Your task to perform on an android device: Go to sound settings Image 0: 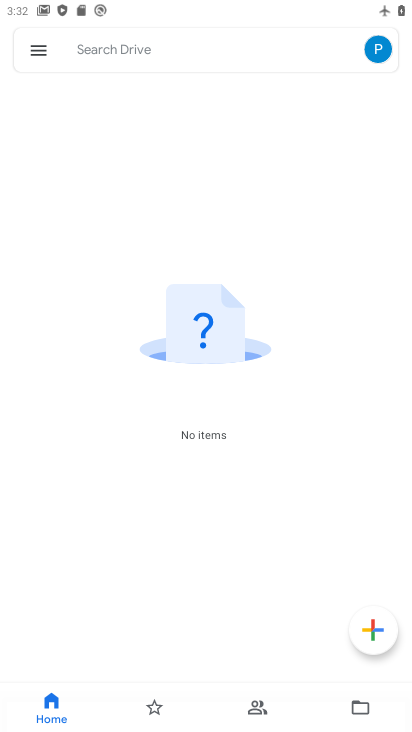
Step 0: press home button
Your task to perform on an android device: Go to sound settings Image 1: 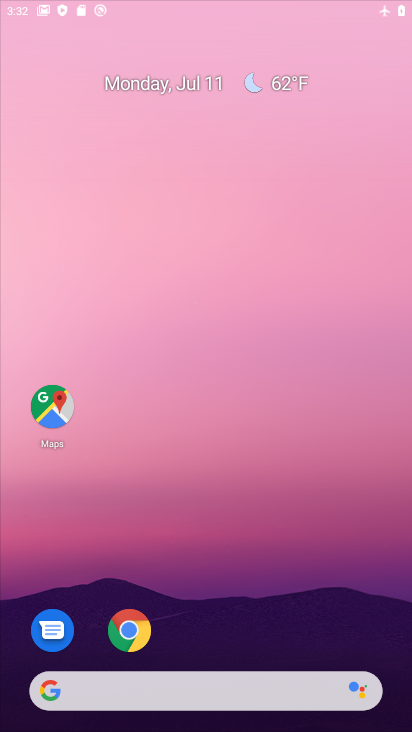
Step 1: drag from (248, 625) to (220, 173)
Your task to perform on an android device: Go to sound settings Image 2: 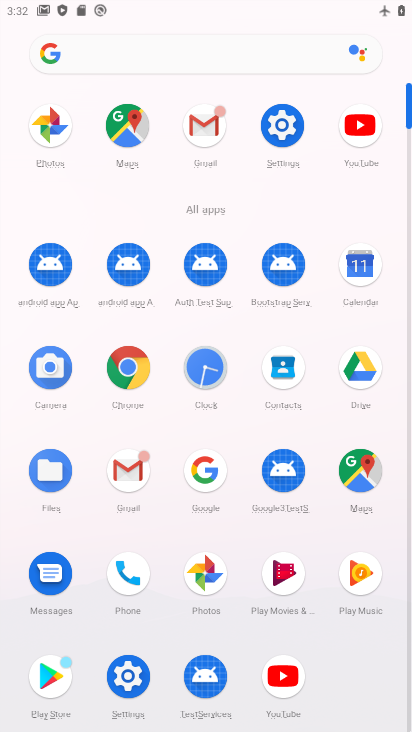
Step 2: click (295, 121)
Your task to perform on an android device: Go to sound settings Image 3: 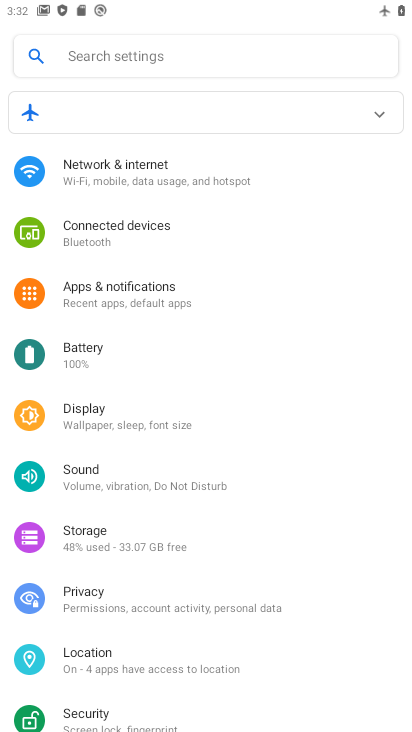
Step 3: click (125, 484)
Your task to perform on an android device: Go to sound settings Image 4: 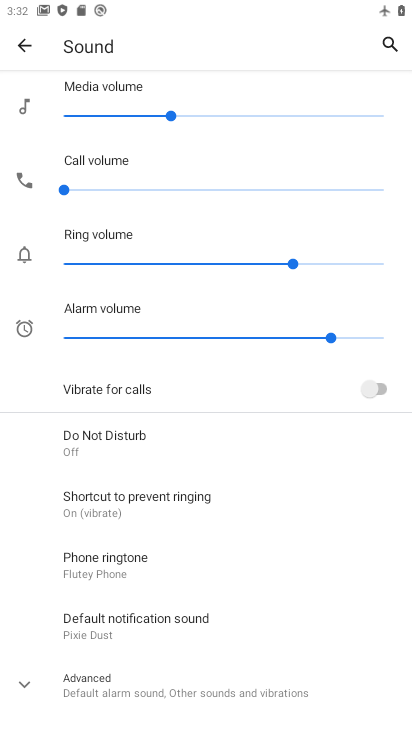
Step 4: task complete